Your task to perform on an android device: visit the assistant section in the google photos Image 0: 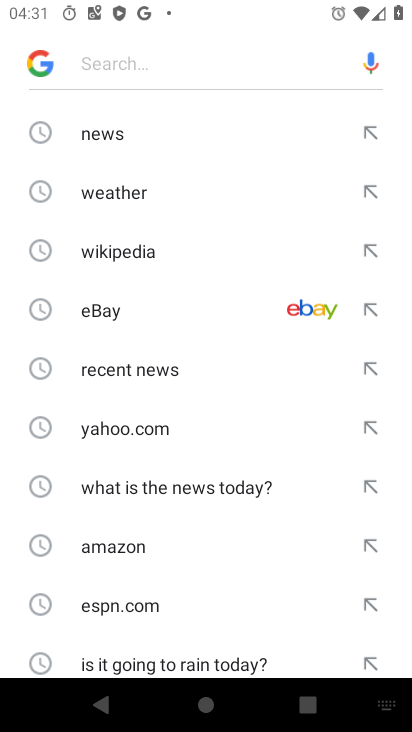
Step 0: press home button
Your task to perform on an android device: visit the assistant section in the google photos Image 1: 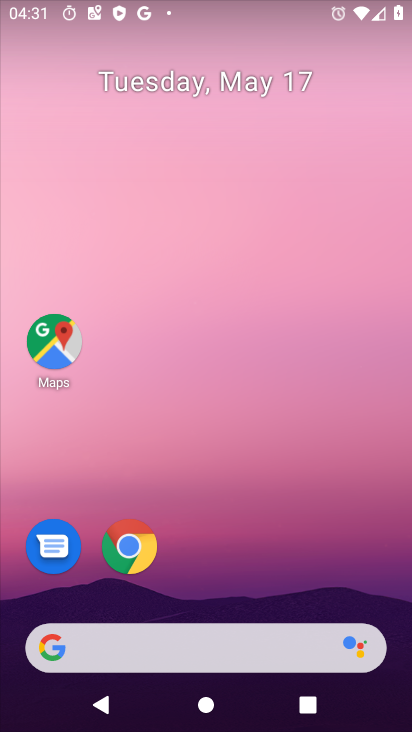
Step 1: drag from (399, 641) to (367, 285)
Your task to perform on an android device: visit the assistant section in the google photos Image 2: 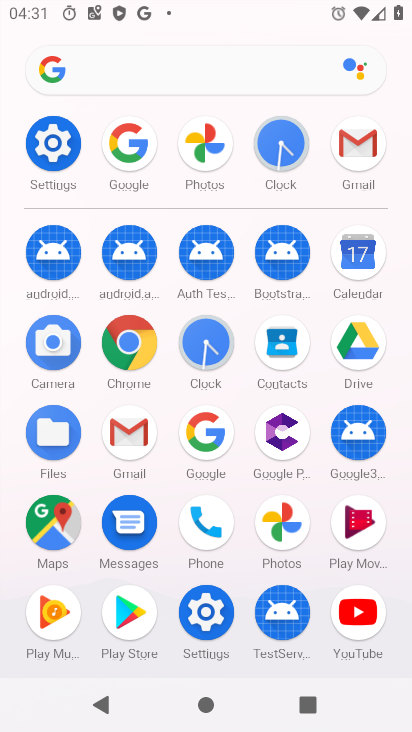
Step 2: click (277, 532)
Your task to perform on an android device: visit the assistant section in the google photos Image 3: 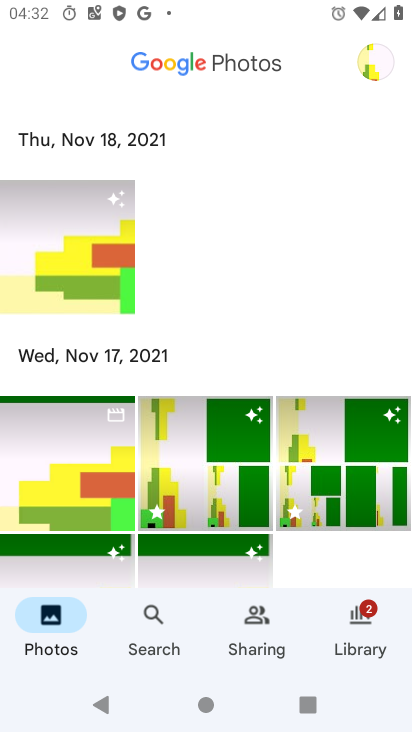
Step 3: task complete